Your task to perform on an android device: turn off priority inbox in the gmail app Image 0: 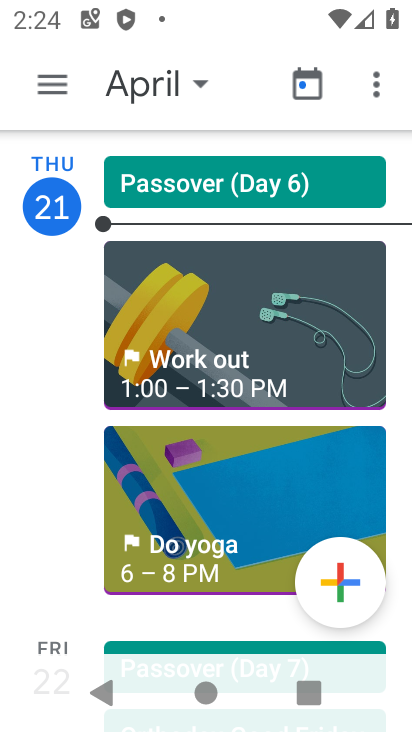
Step 0: press home button
Your task to perform on an android device: turn off priority inbox in the gmail app Image 1: 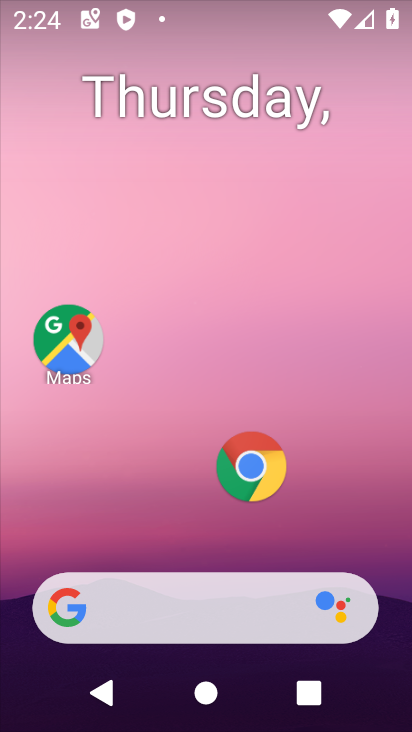
Step 1: drag from (196, 530) to (237, 158)
Your task to perform on an android device: turn off priority inbox in the gmail app Image 2: 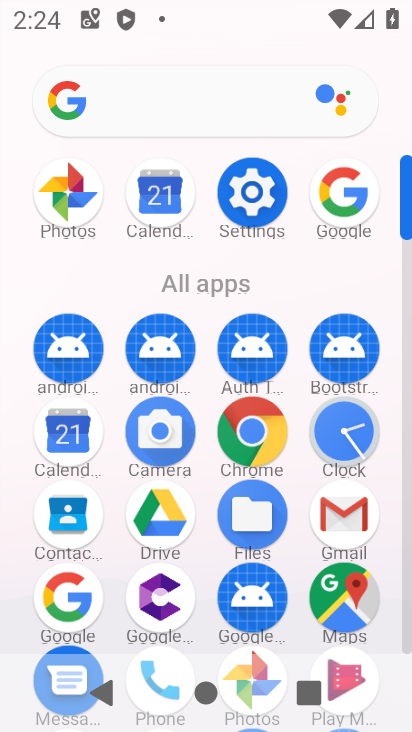
Step 2: click (330, 505)
Your task to perform on an android device: turn off priority inbox in the gmail app Image 3: 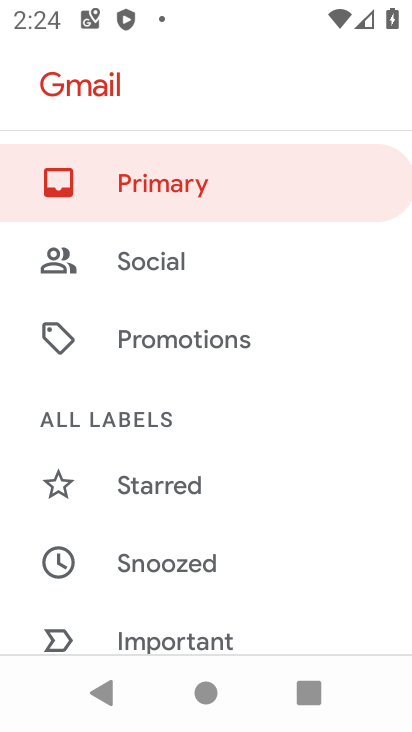
Step 3: drag from (230, 609) to (242, 225)
Your task to perform on an android device: turn off priority inbox in the gmail app Image 4: 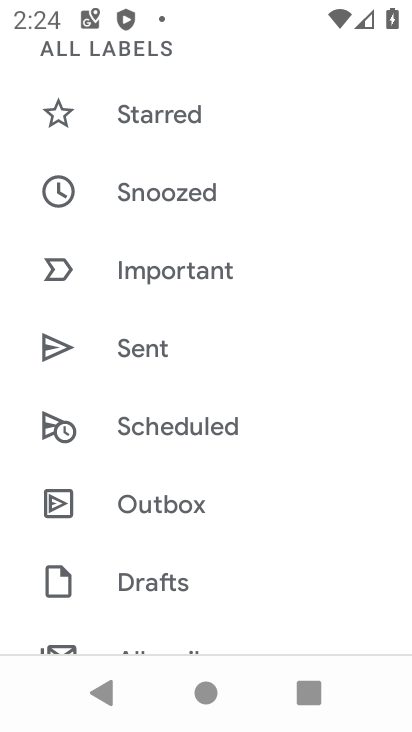
Step 4: drag from (190, 572) to (225, 250)
Your task to perform on an android device: turn off priority inbox in the gmail app Image 5: 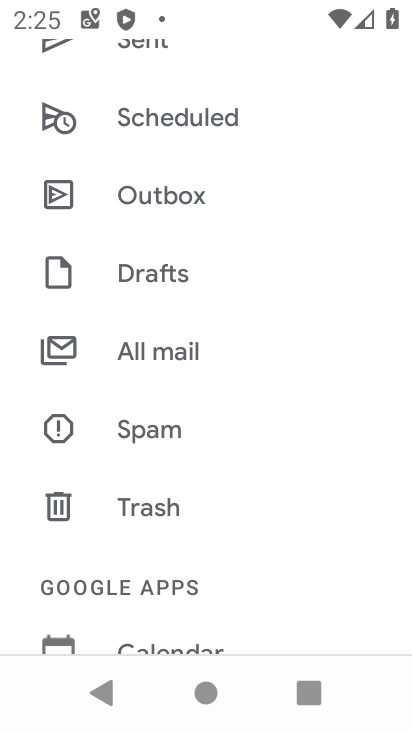
Step 5: drag from (258, 450) to (281, 206)
Your task to perform on an android device: turn off priority inbox in the gmail app Image 6: 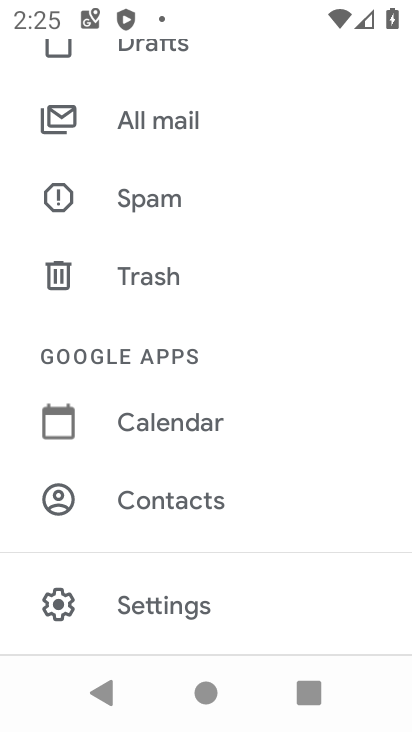
Step 6: click (181, 599)
Your task to perform on an android device: turn off priority inbox in the gmail app Image 7: 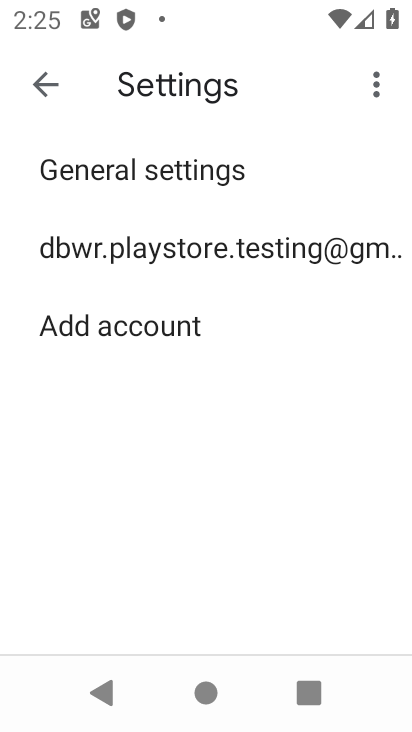
Step 7: click (172, 254)
Your task to perform on an android device: turn off priority inbox in the gmail app Image 8: 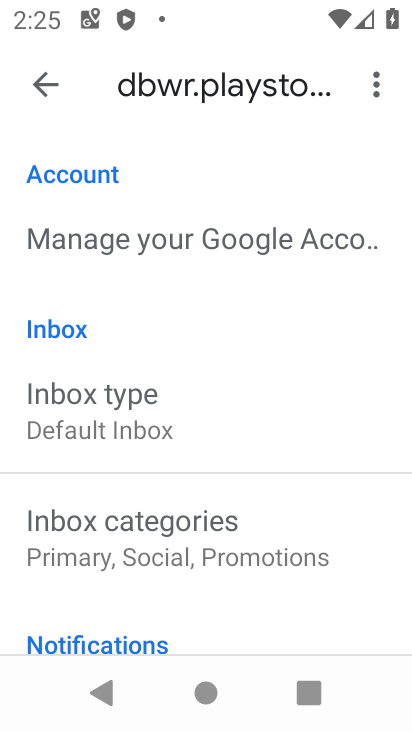
Step 8: click (139, 401)
Your task to perform on an android device: turn off priority inbox in the gmail app Image 9: 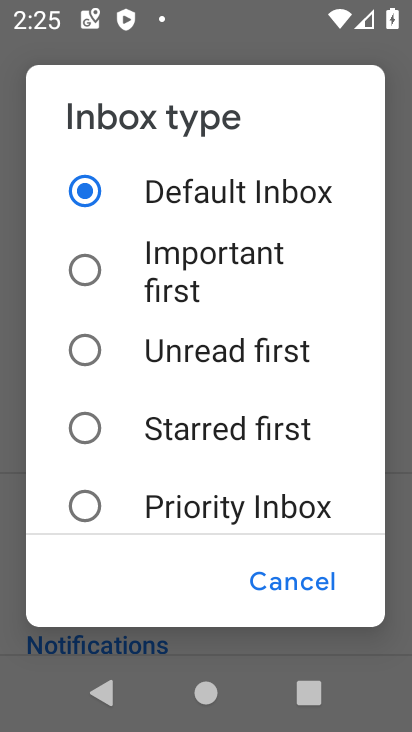
Step 9: task complete